Your task to perform on an android device: toggle notifications settings in the gmail app Image 0: 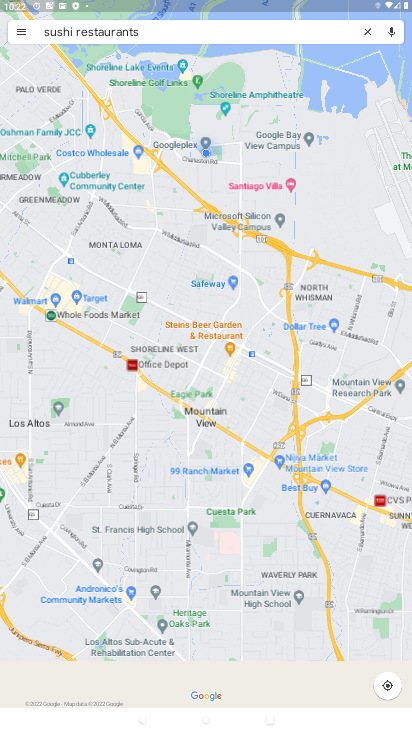
Step 0: drag from (234, 552) to (238, 317)
Your task to perform on an android device: toggle notifications settings in the gmail app Image 1: 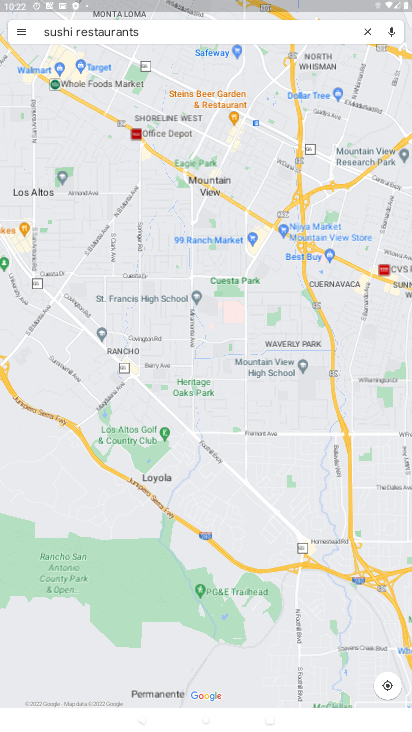
Step 1: click (19, 30)
Your task to perform on an android device: toggle notifications settings in the gmail app Image 2: 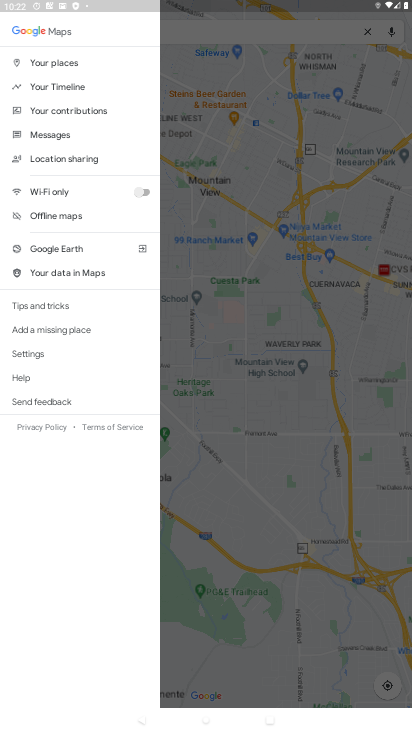
Step 2: click (42, 350)
Your task to perform on an android device: toggle notifications settings in the gmail app Image 3: 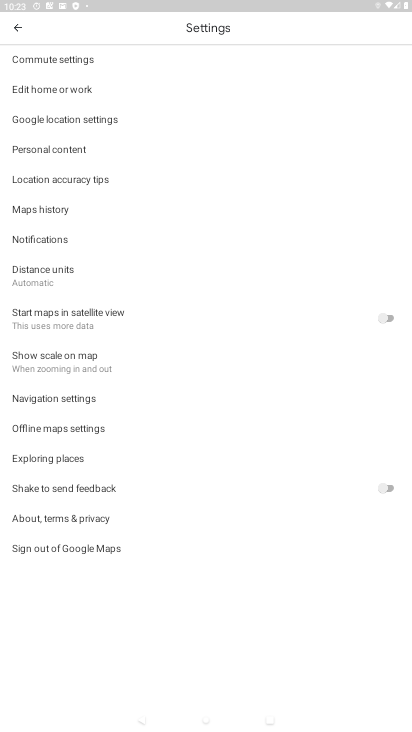
Step 3: press home button
Your task to perform on an android device: toggle notifications settings in the gmail app Image 4: 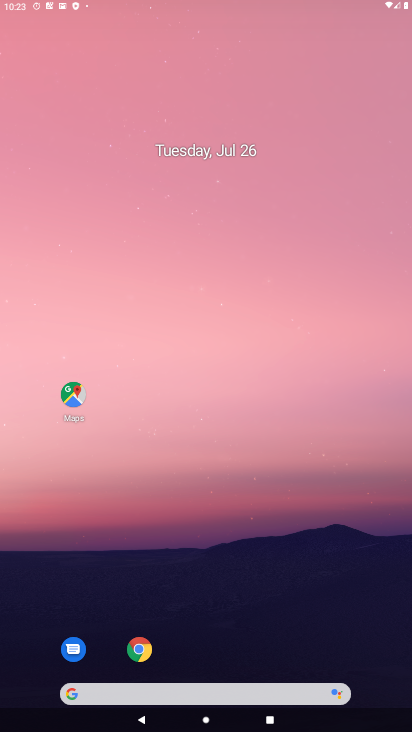
Step 4: drag from (199, 504) to (232, 44)
Your task to perform on an android device: toggle notifications settings in the gmail app Image 5: 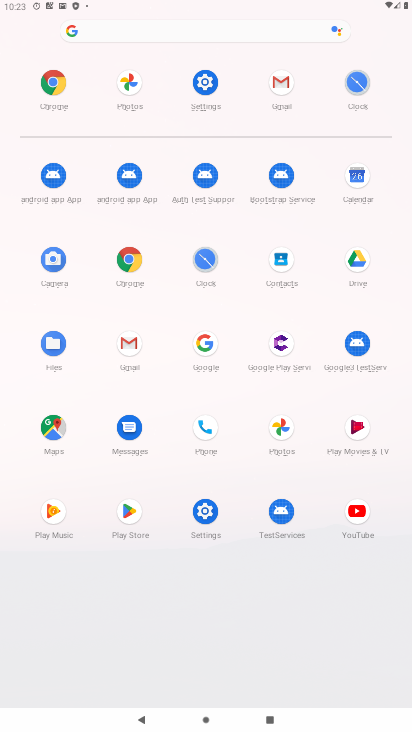
Step 5: click (125, 348)
Your task to perform on an android device: toggle notifications settings in the gmail app Image 6: 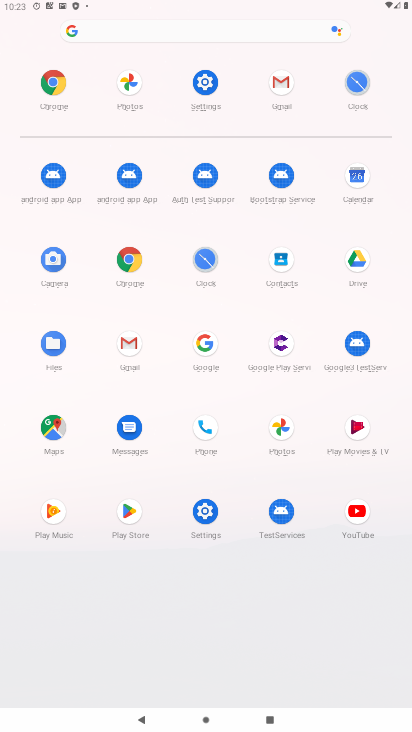
Step 6: click (125, 348)
Your task to perform on an android device: toggle notifications settings in the gmail app Image 7: 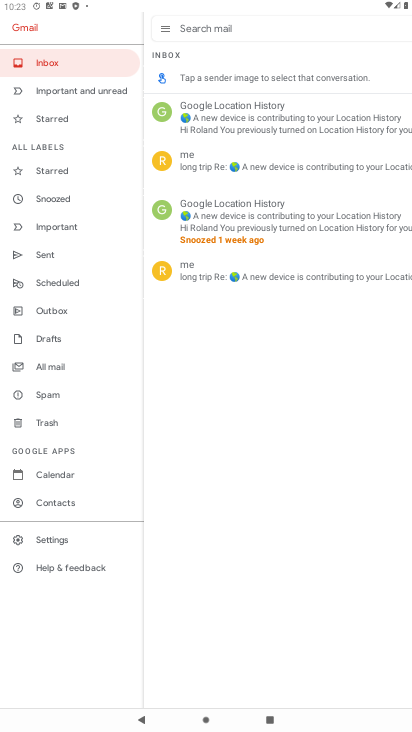
Step 7: click (52, 534)
Your task to perform on an android device: toggle notifications settings in the gmail app Image 8: 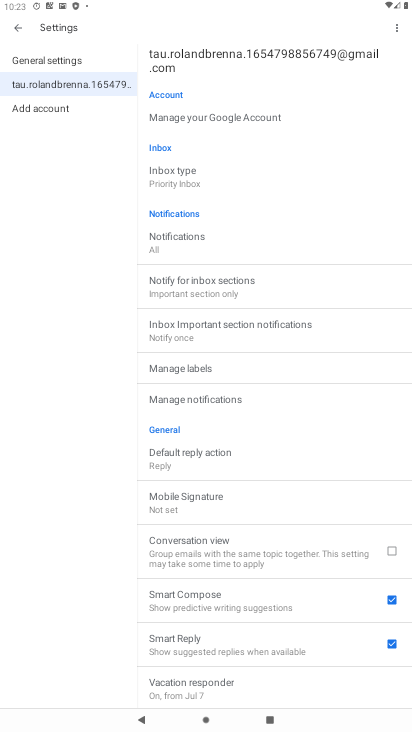
Step 8: click (213, 395)
Your task to perform on an android device: toggle notifications settings in the gmail app Image 9: 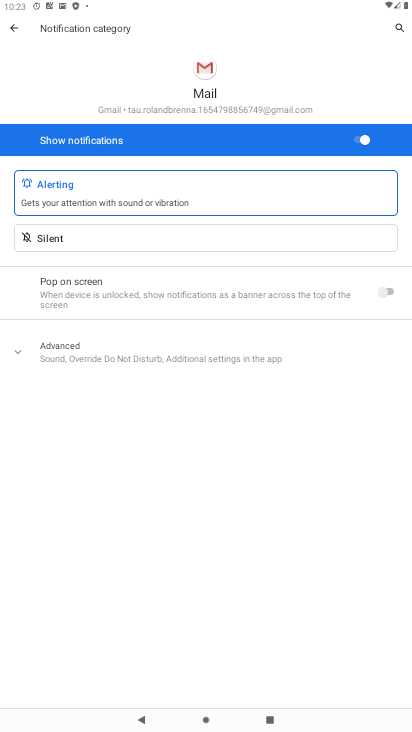
Step 9: drag from (231, 470) to (240, 133)
Your task to perform on an android device: toggle notifications settings in the gmail app Image 10: 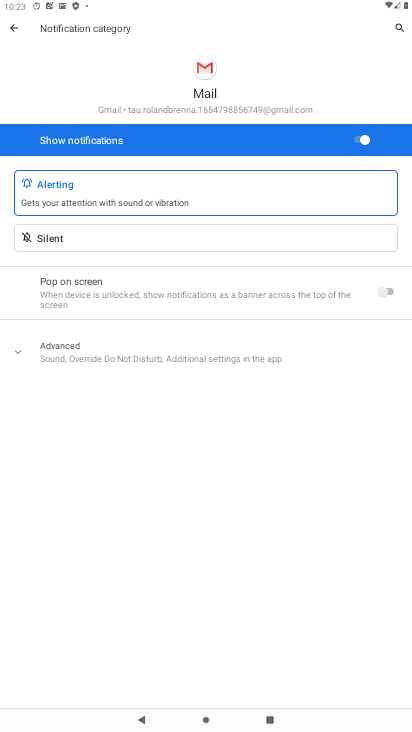
Step 10: click (355, 140)
Your task to perform on an android device: toggle notifications settings in the gmail app Image 11: 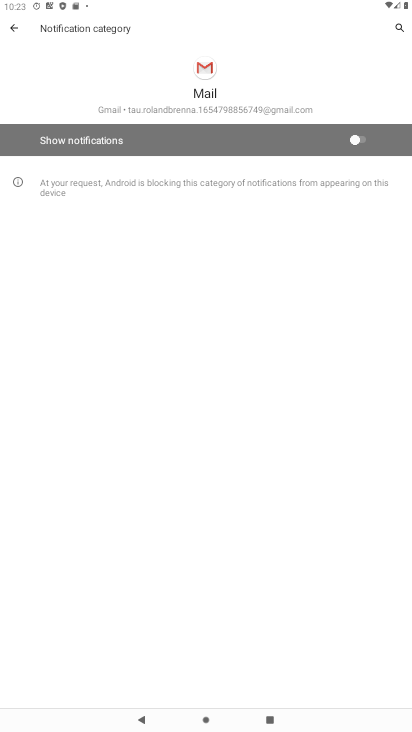
Step 11: task complete